Your task to perform on an android device: turn on priority inbox in the gmail app Image 0: 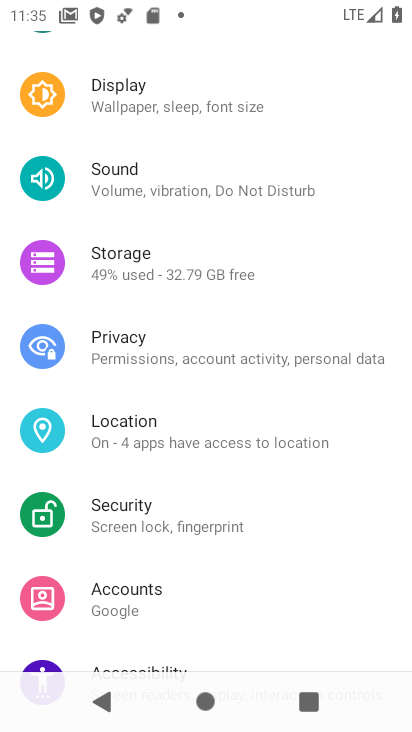
Step 0: press home button
Your task to perform on an android device: turn on priority inbox in the gmail app Image 1: 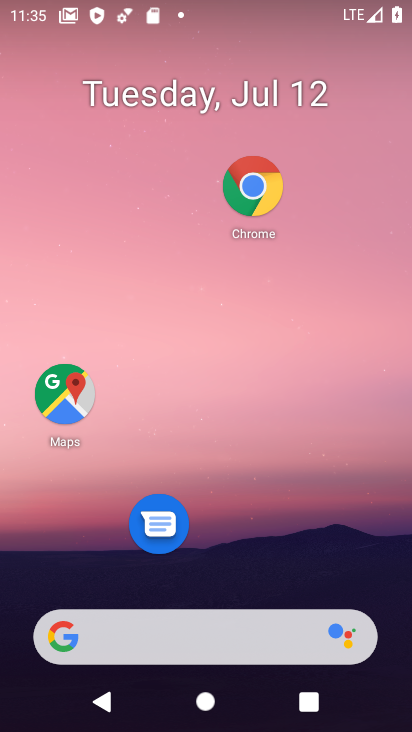
Step 1: drag from (243, 600) to (152, 95)
Your task to perform on an android device: turn on priority inbox in the gmail app Image 2: 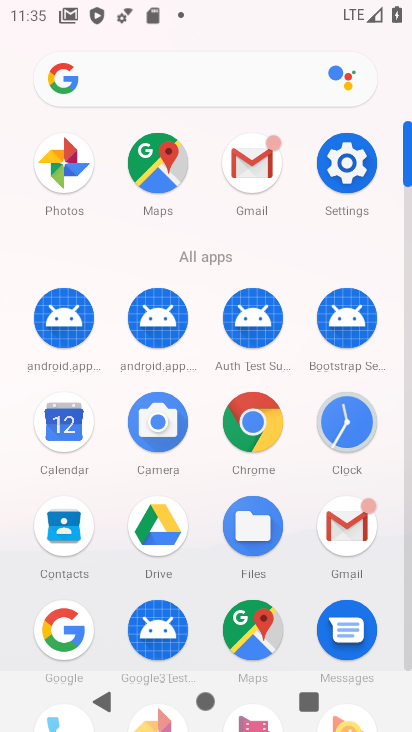
Step 2: click (262, 179)
Your task to perform on an android device: turn on priority inbox in the gmail app Image 3: 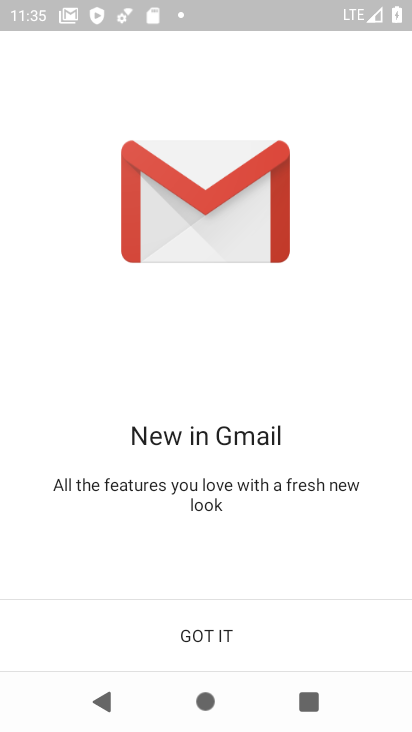
Step 3: click (218, 622)
Your task to perform on an android device: turn on priority inbox in the gmail app Image 4: 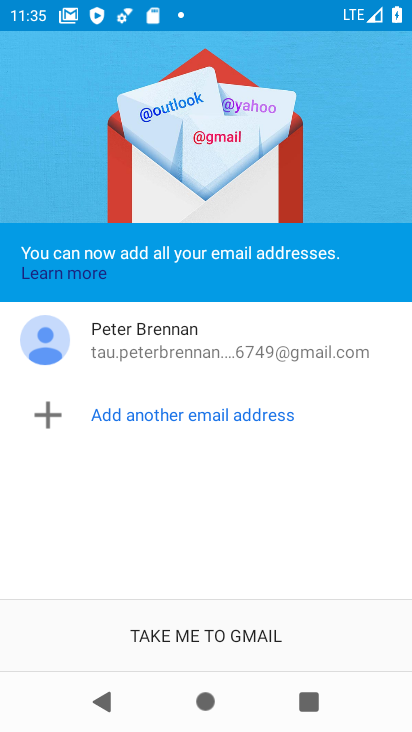
Step 4: click (218, 622)
Your task to perform on an android device: turn on priority inbox in the gmail app Image 5: 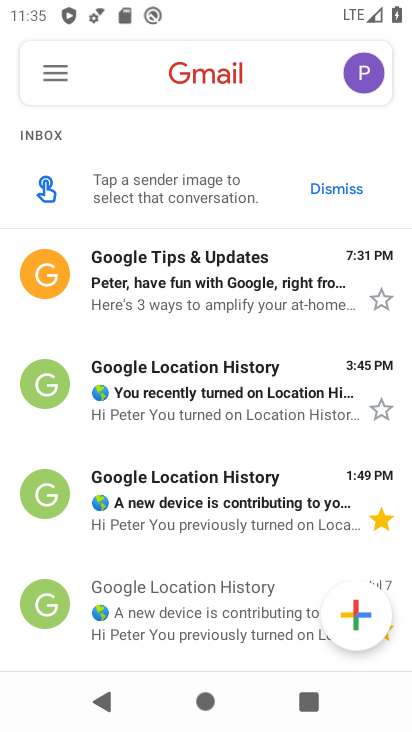
Step 5: click (42, 73)
Your task to perform on an android device: turn on priority inbox in the gmail app Image 6: 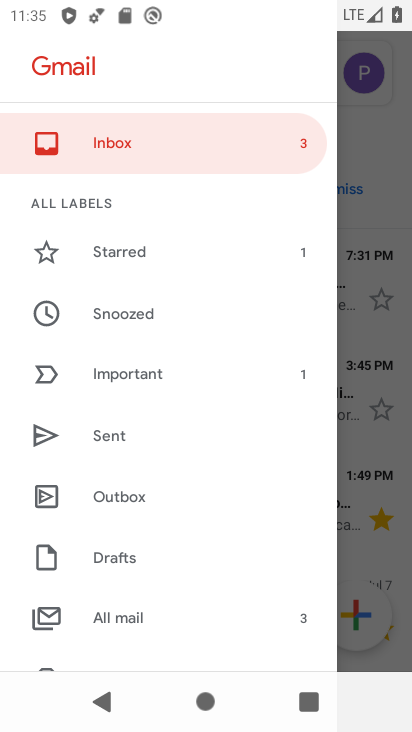
Step 6: drag from (118, 594) to (55, 70)
Your task to perform on an android device: turn on priority inbox in the gmail app Image 7: 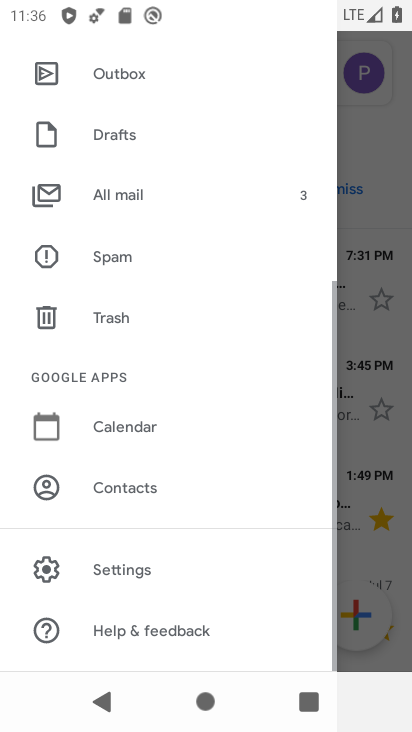
Step 7: click (82, 551)
Your task to perform on an android device: turn on priority inbox in the gmail app Image 8: 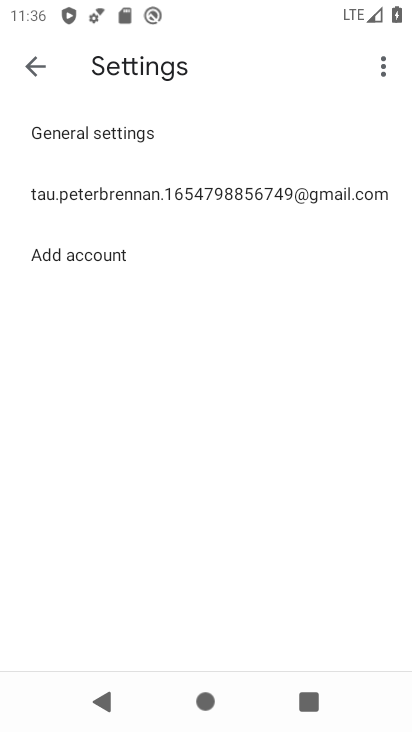
Step 8: click (76, 189)
Your task to perform on an android device: turn on priority inbox in the gmail app Image 9: 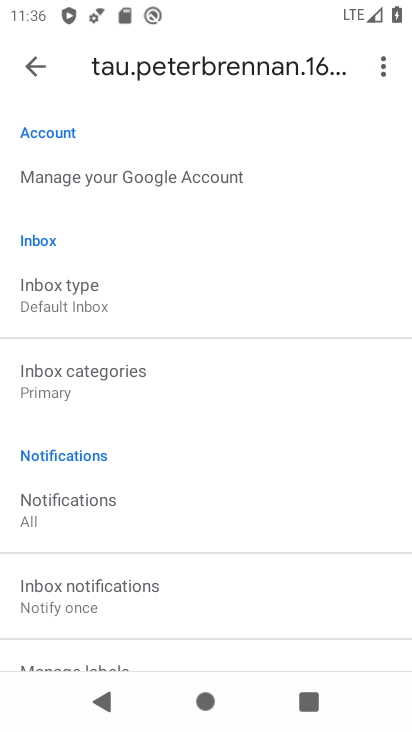
Step 9: click (133, 307)
Your task to perform on an android device: turn on priority inbox in the gmail app Image 10: 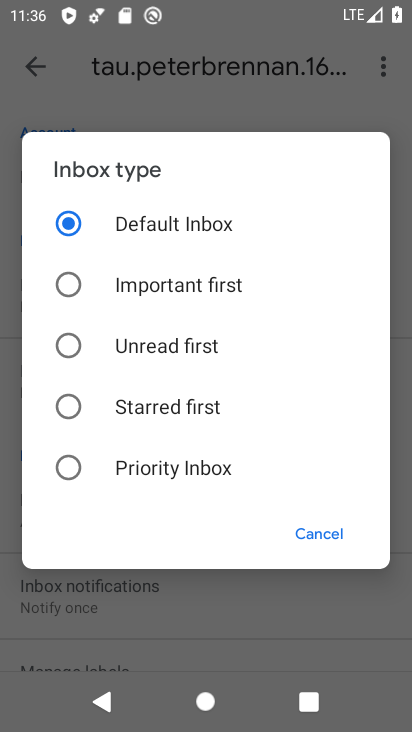
Step 10: click (125, 463)
Your task to perform on an android device: turn on priority inbox in the gmail app Image 11: 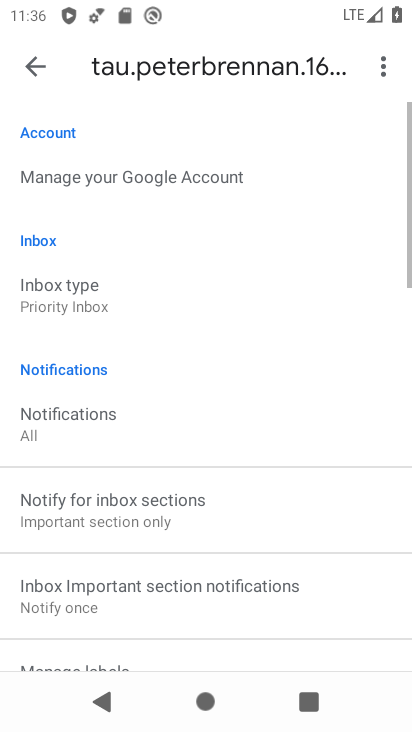
Step 11: task complete